Your task to perform on an android device: Go to accessibility settings Image 0: 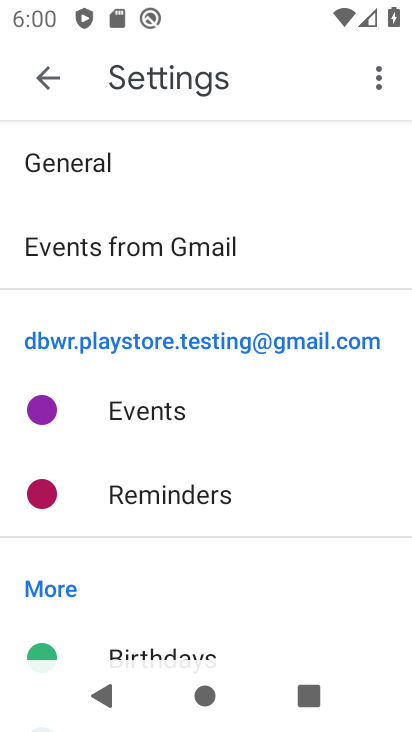
Step 0: press home button
Your task to perform on an android device: Go to accessibility settings Image 1: 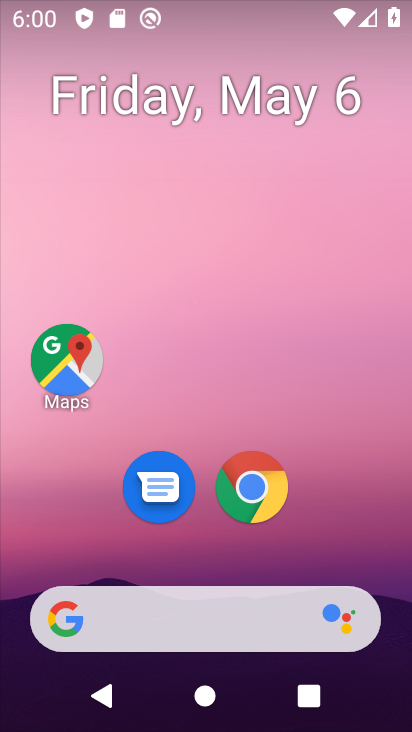
Step 1: drag from (307, 499) to (330, 88)
Your task to perform on an android device: Go to accessibility settings Image 2: 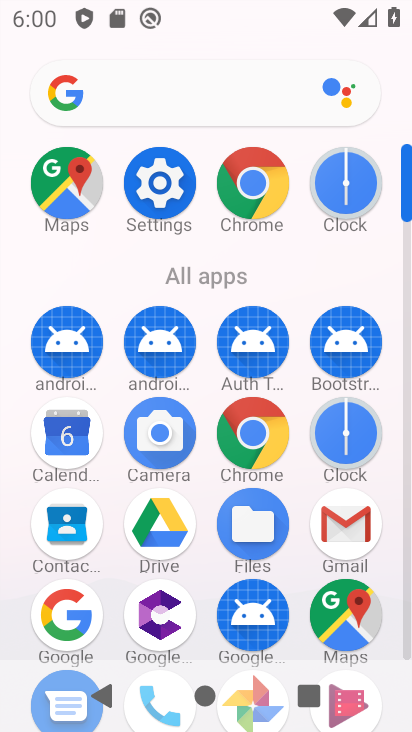
Step 2: click (162, 181)
Your task to perform on an android device: Go to accessibility settings Image 3: 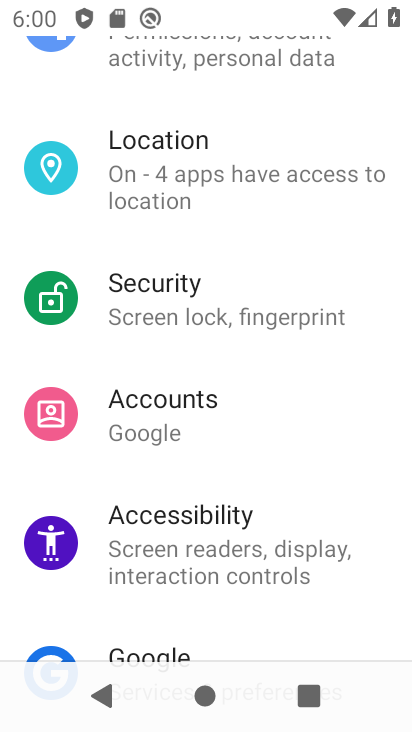
Step 3: click (173, 530)
Your task to perform on an android device: Go to accessibility settings Image 4: 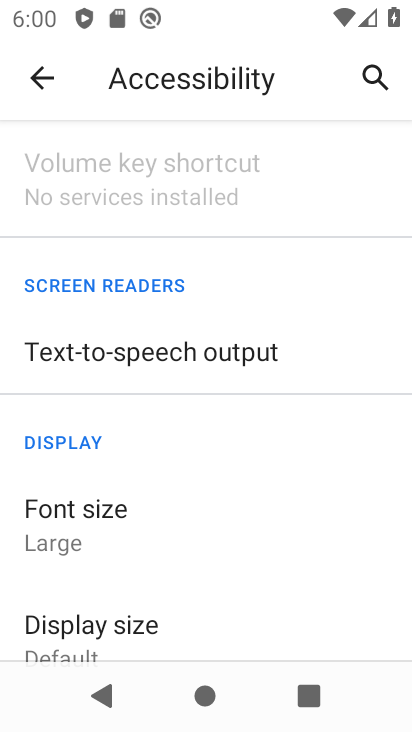
Step 4: task complete